Your task to perform on an android device: turn on showing notifications on the lock screen Image 0: 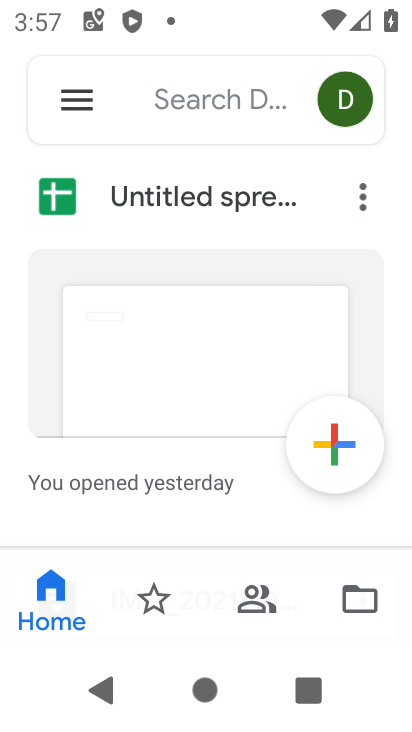
Step 0: press home button
Your task to perform on an android device: turn on showing notifications on the lock screen Image 1: 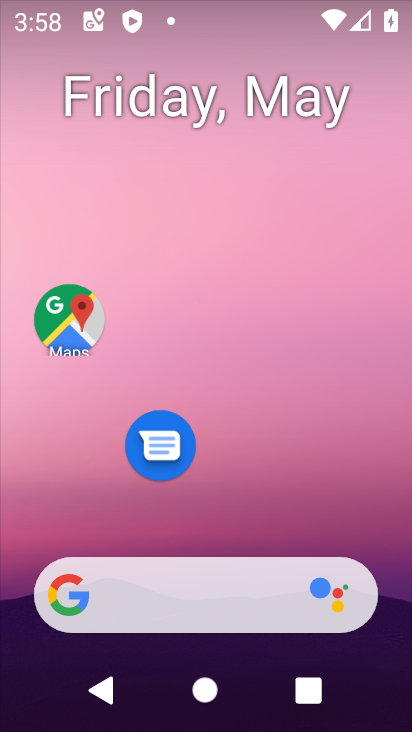
Step 1: drag from (217, 517) to (292, 83)
Your task to perform on an android device: turn on showing notifications on the lock screen Image 2: 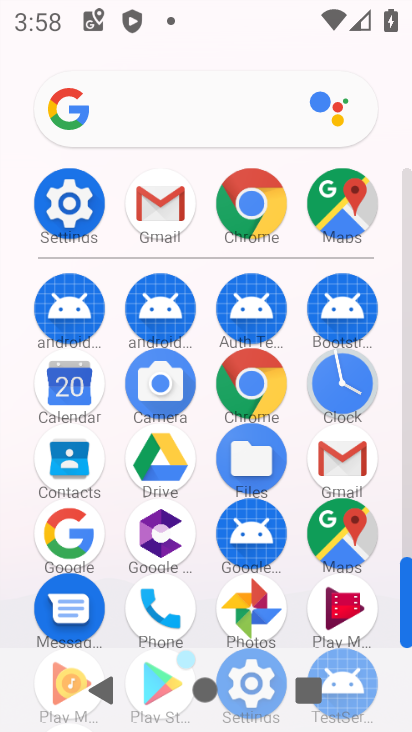
Step 2: drag from (144, 539) to (170, 407)
Your task to perform on an android device: turn on showing notifications on the lock screen Image 3: 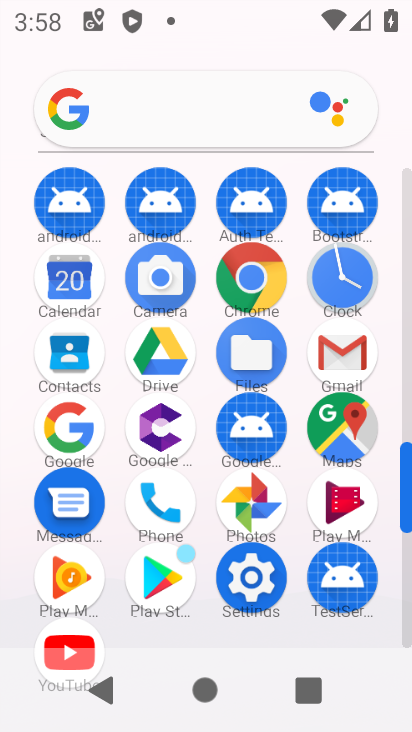
Step 3: click (265, 590)
Your task to perform on an android device: turn on showing notifications on the lock screen Image 4: 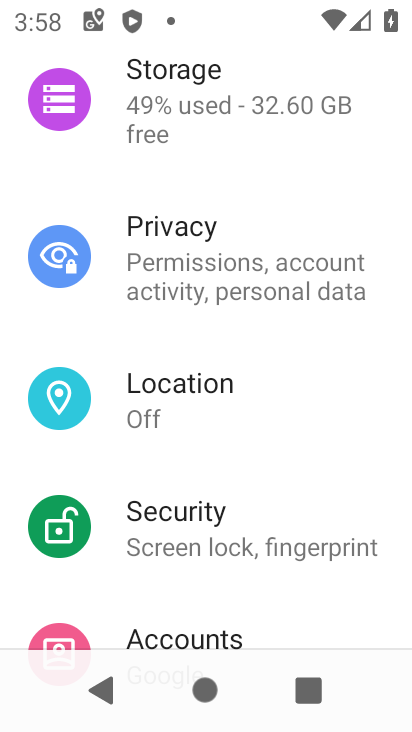
Step 4: drag from (263, 232) to (241, 660)
Your task to perform on an android device: turn on showing notifications on the lock screen Image 5: 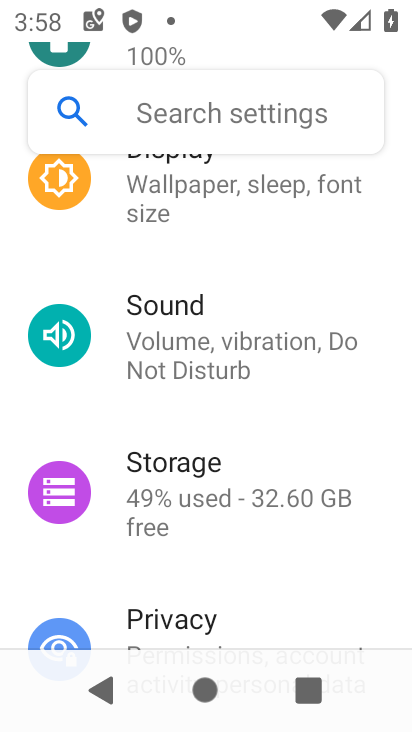
Step 5: drag from (249, 312) to (218, 622)
Your task to perform on an android device: turn on showing notifications on the lock screen Image 6: 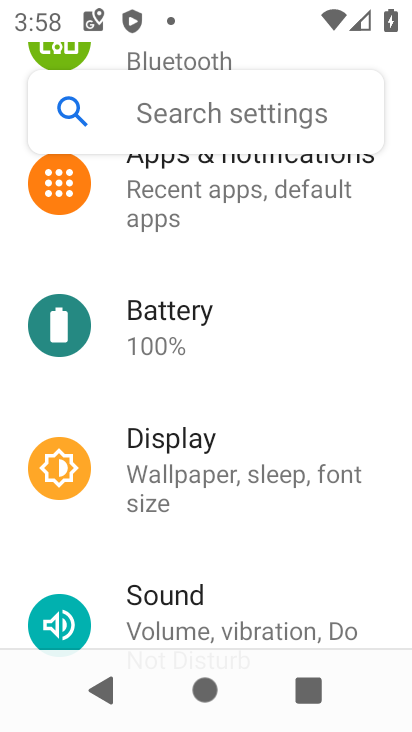
Step 6: drag from (231, 302) to (224, 616)
Your task to perform on an android device: turn on showing notifications on the lock screen Image 7: 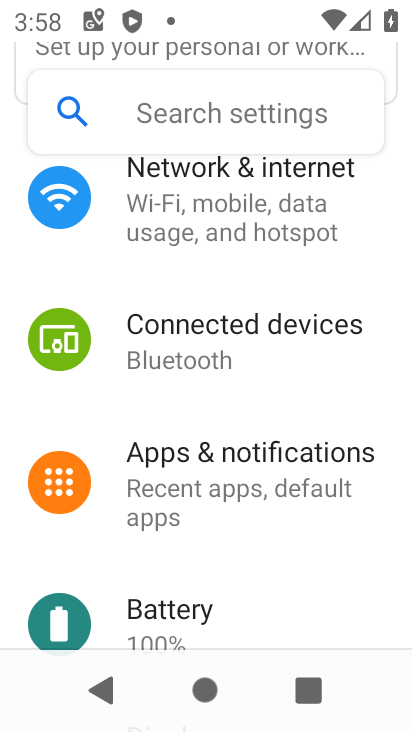
Step 7: click (214, 473)
Your task to perform on an android device: turn on showing notifications on the lock screen Image 8: 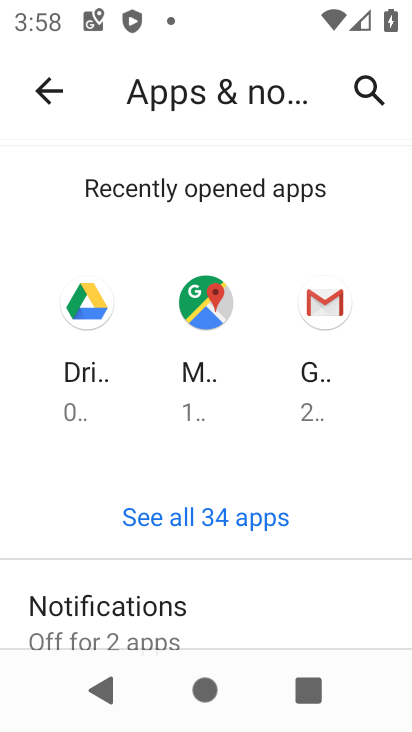
Step 8: drag from (179, 592) to (209, 432)
Your task to perform on an android device: turn on showing notifications on the lock screen Image 9: 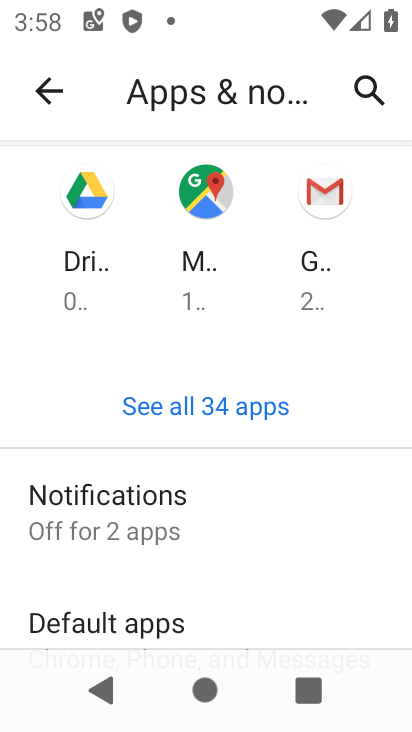
Step 9: click (162, 512)
Your task to perform on an android device: turn on showing notifications on the lock screen Image 10: 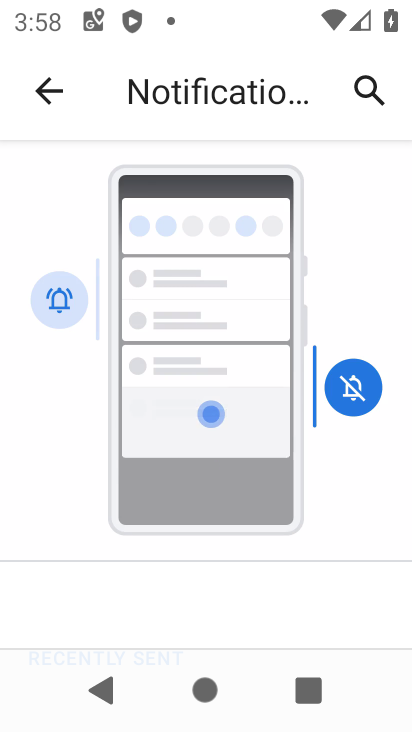
Step 10: drag from (209, 575) to (311, 90)
Your task to perform on an android device: turn on showing notifications on the lock screen Image 11: 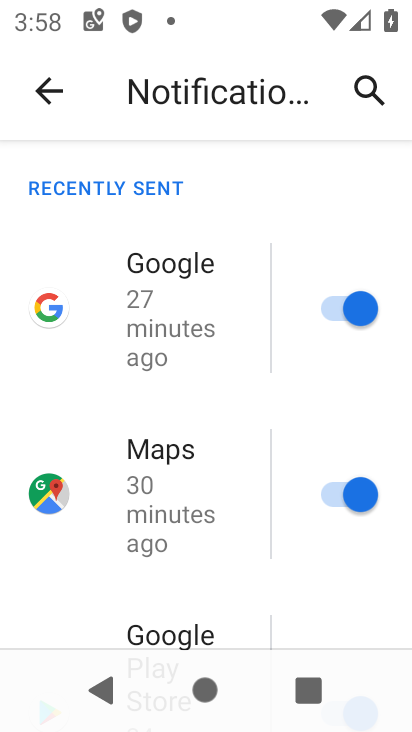
Step 11: drag from (177, 543) to (269, 27)
Your task to perform on an android device: turn on showing notifications on the lock screen Image 12: 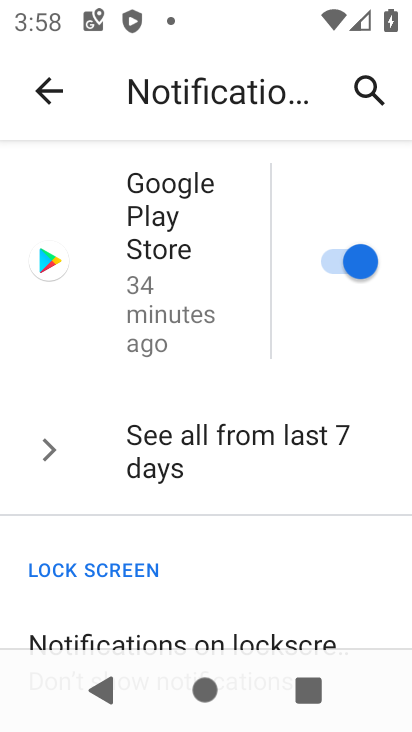
Step 12: drag from (170, 583) to (208, 355)
Your task to perform on an android device: turn on showing notifications on the lock screen Image 13: 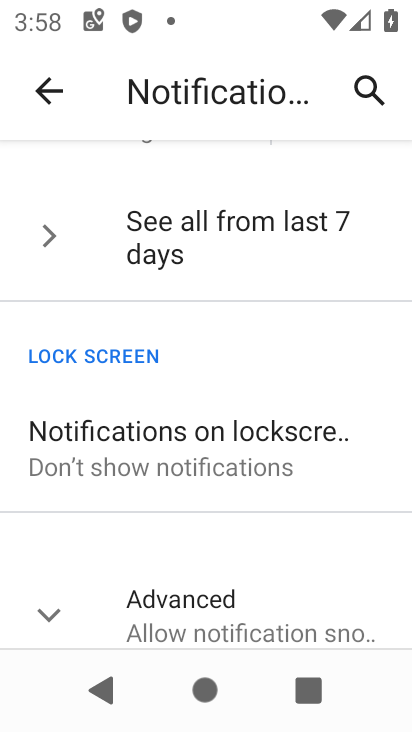
Step 13: click (185, 461)
Your task to perform on an android device: turn on showing notifications on the lock screen Image 14: 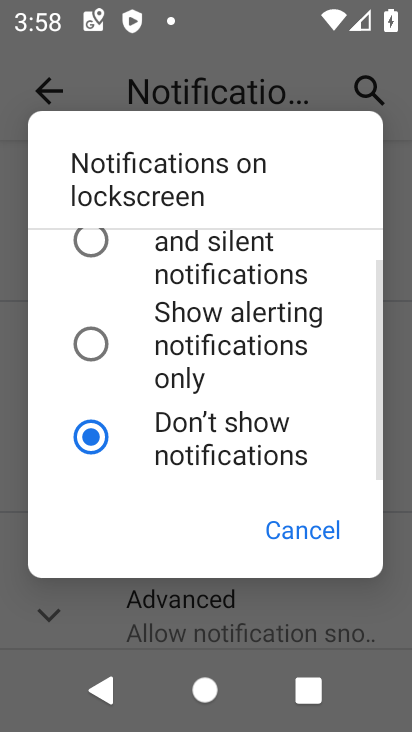
Step 14: click (103, 238)
Your task to perform on an android device: turn on showing notifications on the lock screen Image 15: 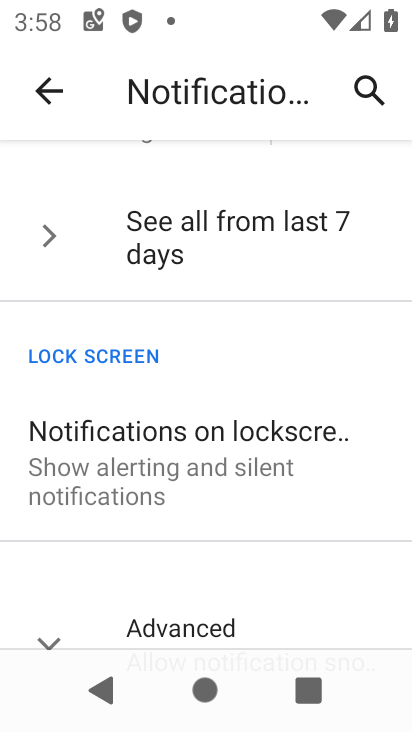
Step 15: task complete